Your task to perform on an android device: Go to location settings Image 0: 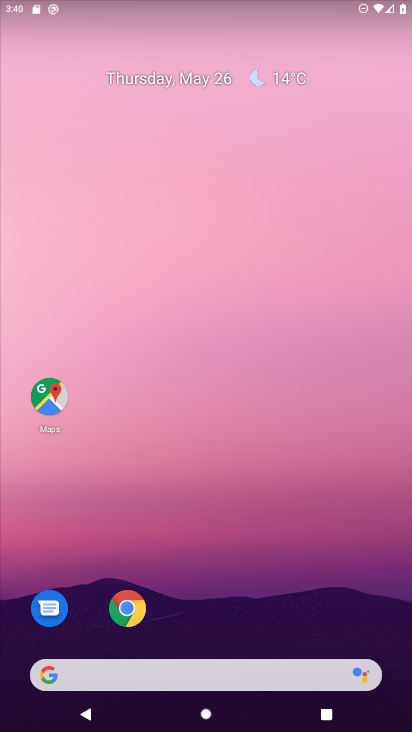
Step 0: drag from (308, 486) to (264, 9)
Your task to perform on an android device: Go to location settings Image 1: 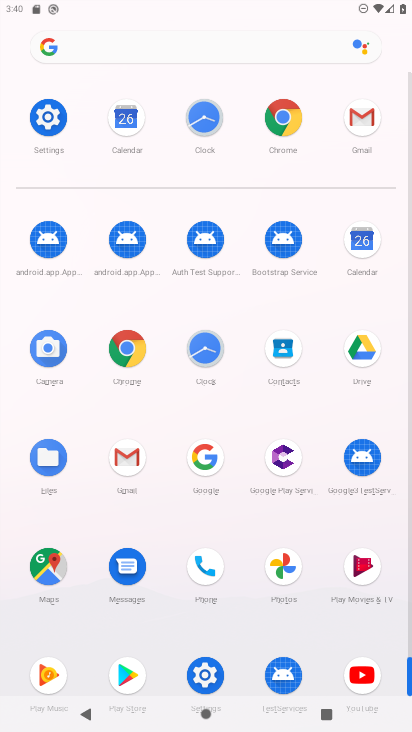
Step 1: click (27, 128)
Your task to perform on an android device: Go to location settings Image 2: 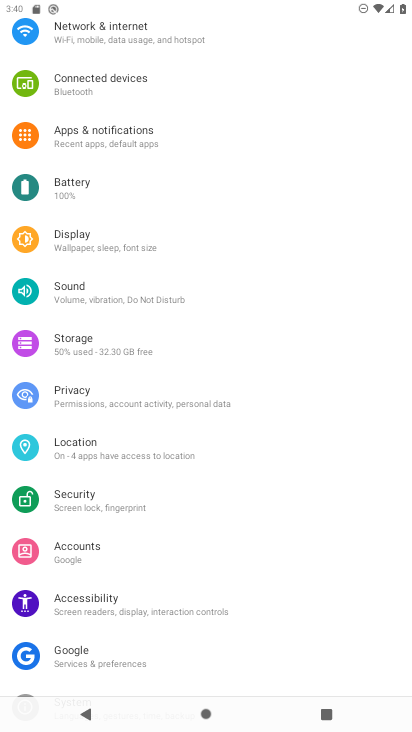
Step 2: click (85, 431)
Your task to perform on an android device: Go to location settings Image 3: 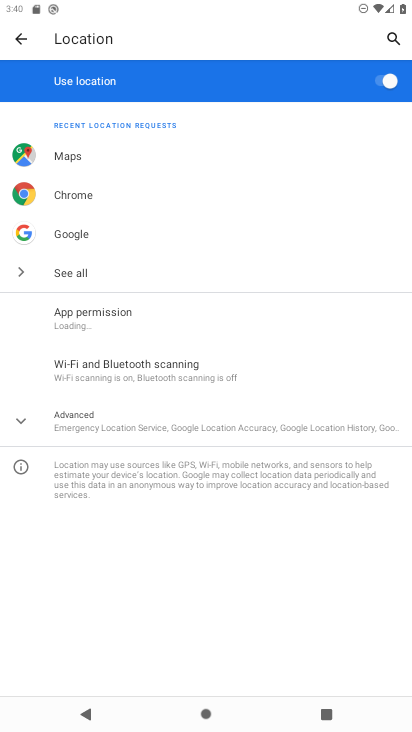
Step 3: task complete